Your task to perform on an android device: Toggle the flashlight Image 0: 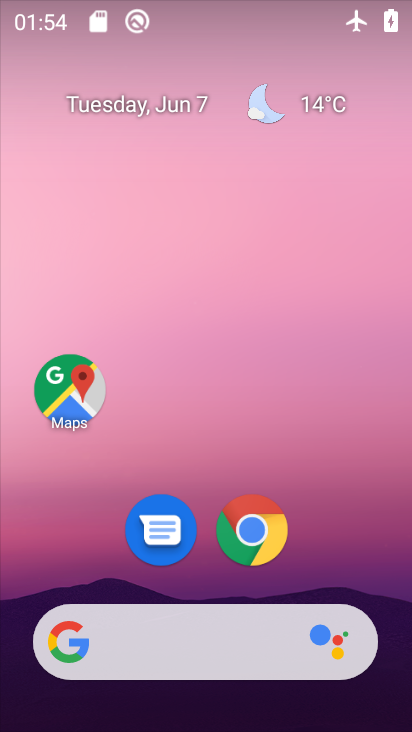
Step 0: click (295, 169)
Your task to perform on an android device: Toggle the flashlight Image 1: 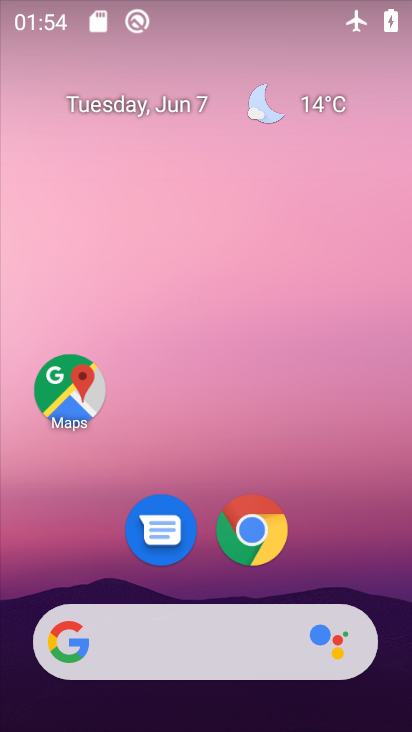
Step 1: drag from (306, 531) to (344, 248)
Your task to perform on an android device: Toggle the flashlight Image 2: 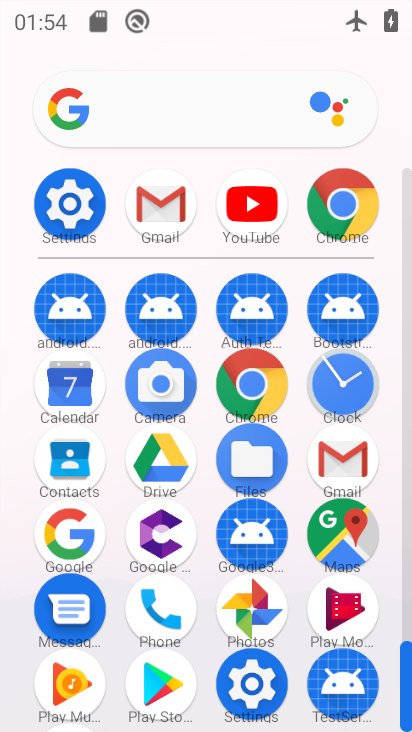
Step 2: click (66, 207)
Your task to perform on an android device: Toggle the flashlight Image 3: 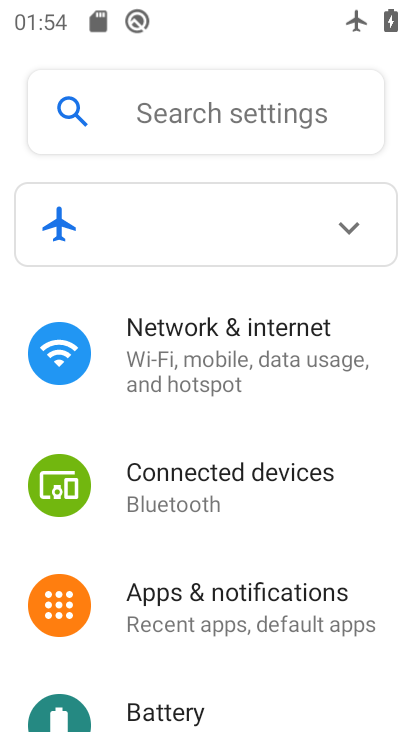
Step 3: task complete